Your task to perform on an android device: allow notifications from all sites in the chrome app Image 0: 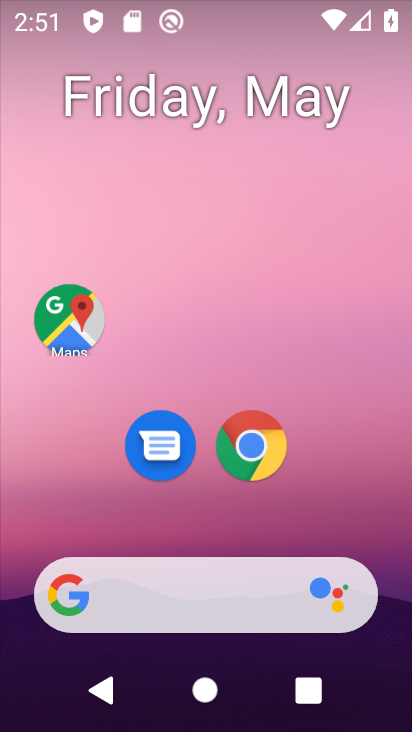
Step 0: drag from (385, 679) to (174, 137)
Your task to perform on an android device: allow notifications from all sites in the chrome app Image 1: 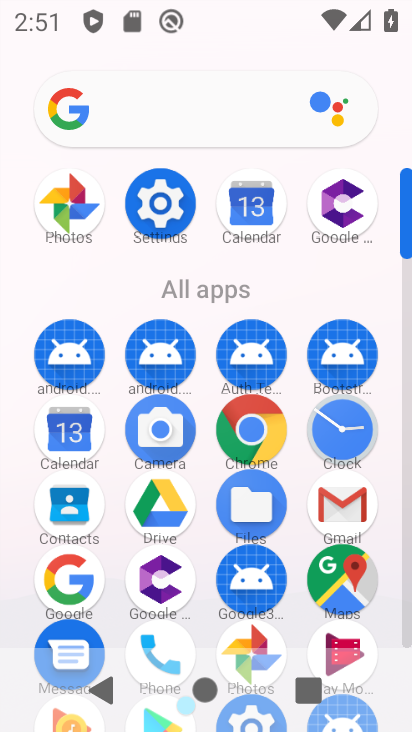
Step 1: click (251, 427)
Your task to perform on an android device: allow notifications from all sites in the chrome app Image 2: 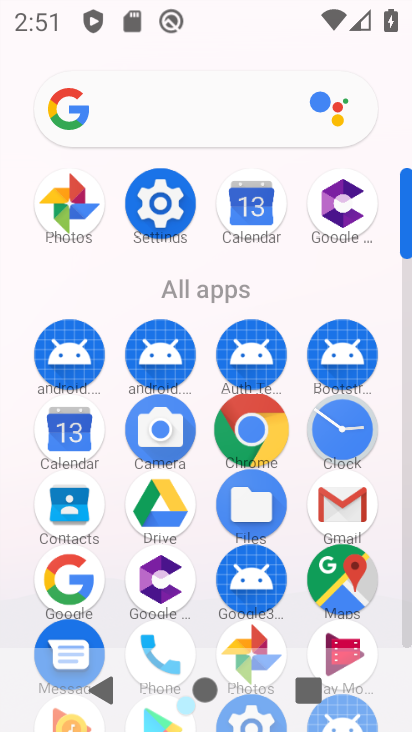
Step 2: click (251, 427)
Your task to perform on an android device: allow notifications from all sites in the chrome app Image 3: 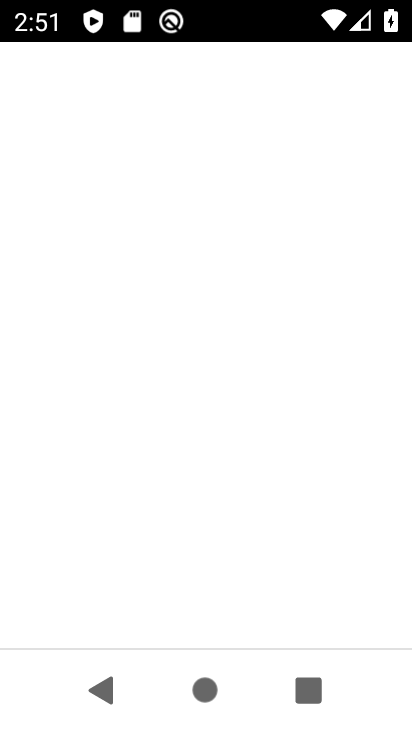
Step 3: click (251, 427)
Your task to perform on an android device: allow notifications from all sites in the chrome app Image 4: 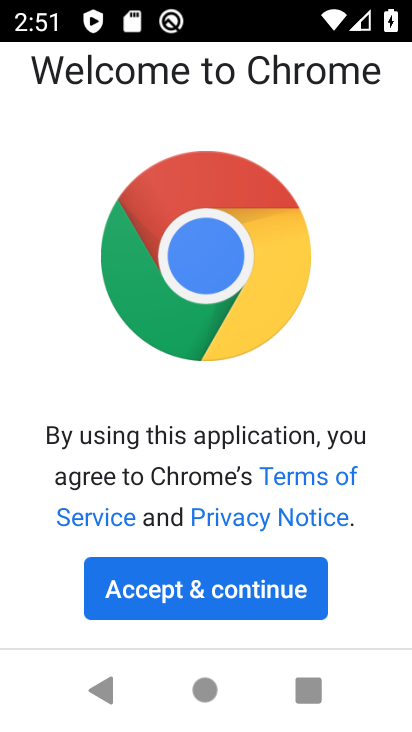
Step 4: click (203, 586)
Your task to perform on an android device: allow notifications from all sites in the chrome app Image 5: 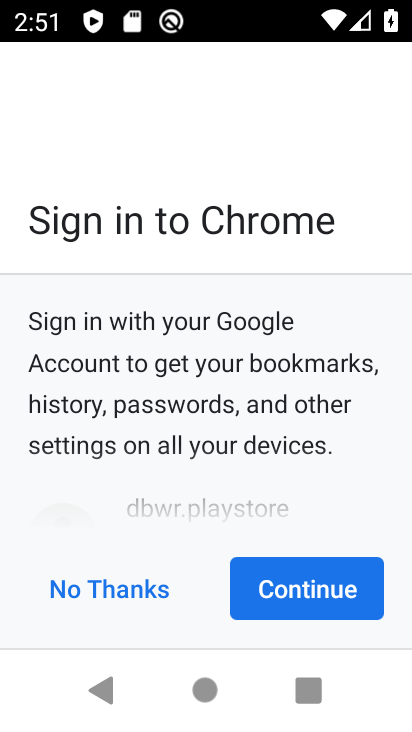
Step 5: click (325, 587)
Your task to perform on an android device: allow notifications from all sites in the chrome app Image 6: 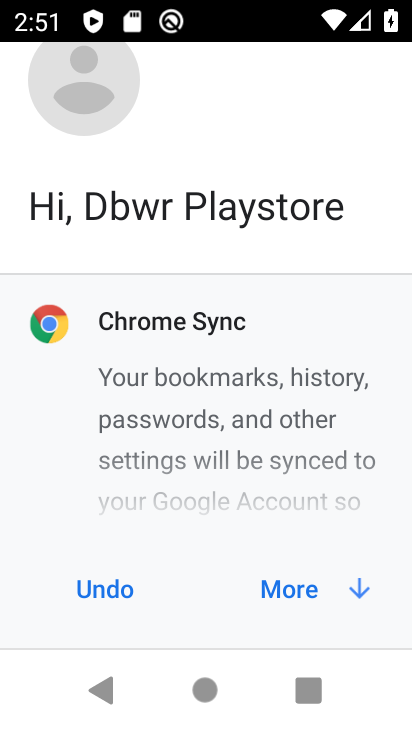
Step 6: click (312, 597)
Your task to perform on an android device: allow notifications from all sites in the chrome app Image 7: 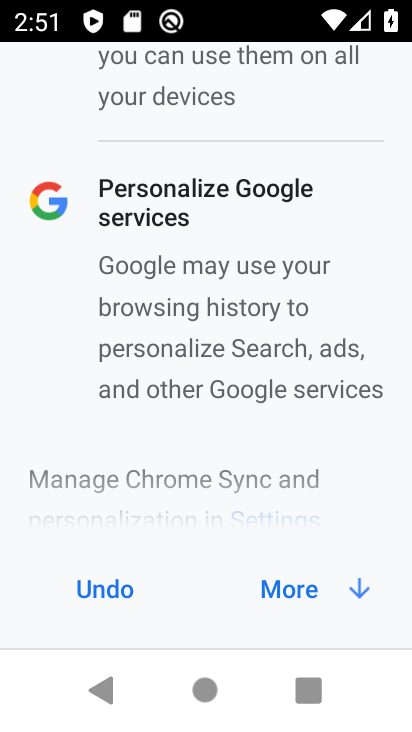
Step 7: click (308, 588)
Your task to perform on an android device: allow notifications from all sites in the chrome app Image 8: 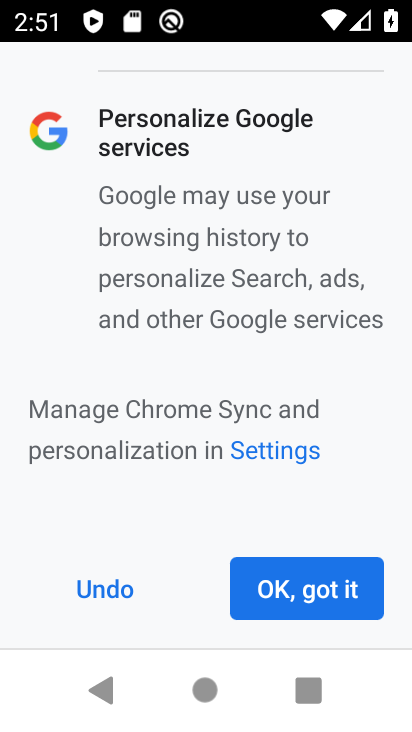
Step 8: click (308, 588)
Your task to perform on an android device: allow notifications from all sites in the chrome app Image 9: 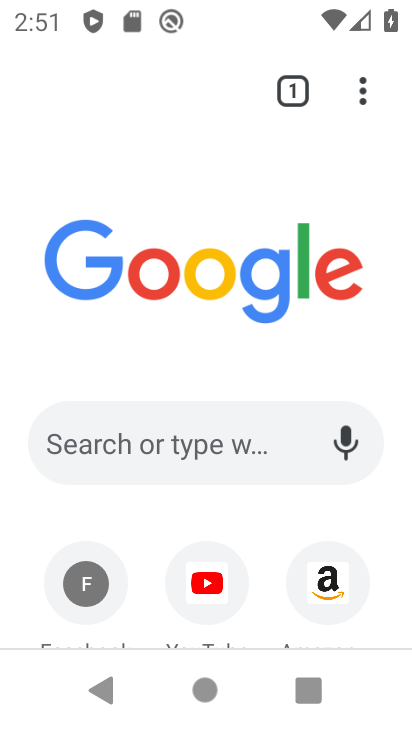
Step 9: drag from (359, 93) to (179, 442)
Your task to perform on an android device: allow notifications from all sites in the chrome app Image 10: 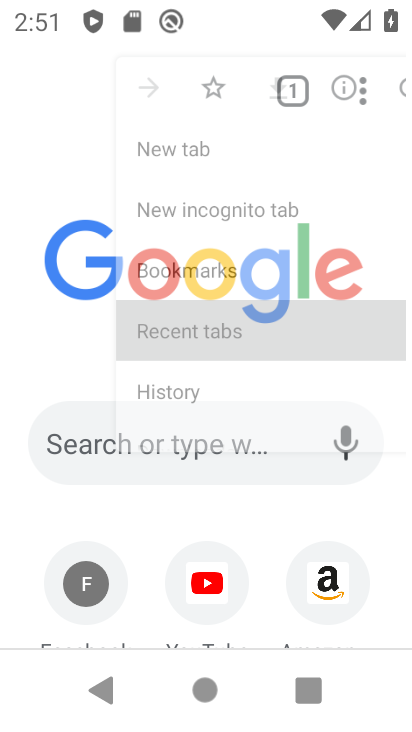
Step 10: drag from (179, 442) to (145, 185)
Your task to perform on an android device: allow notifications from all sites in the chrome app Image 11: 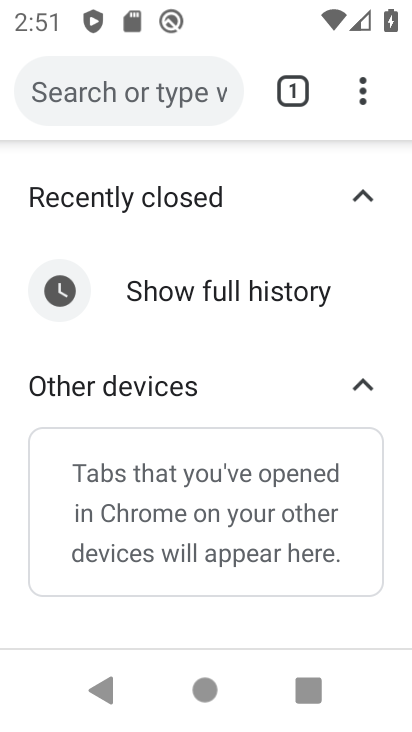
Step 11: press back button
Your task to perform on an android device: allow notifications from all sites in the chrome app Image 12: 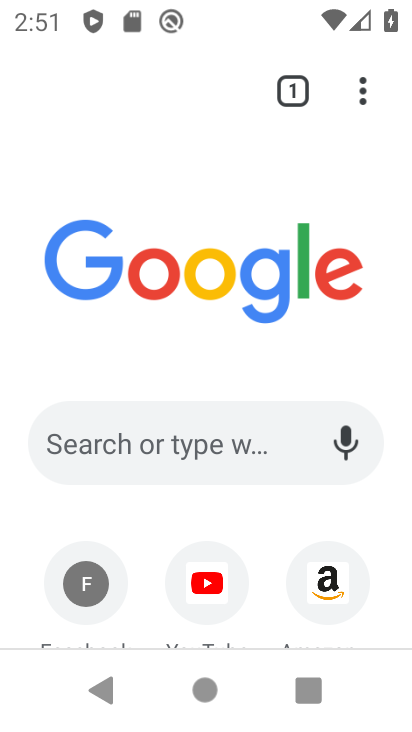
Step 12: drag from (364, 100) to (90, 478)
Your task to perform on an android device: allow notifications from all sites in the chrome app Image 13: 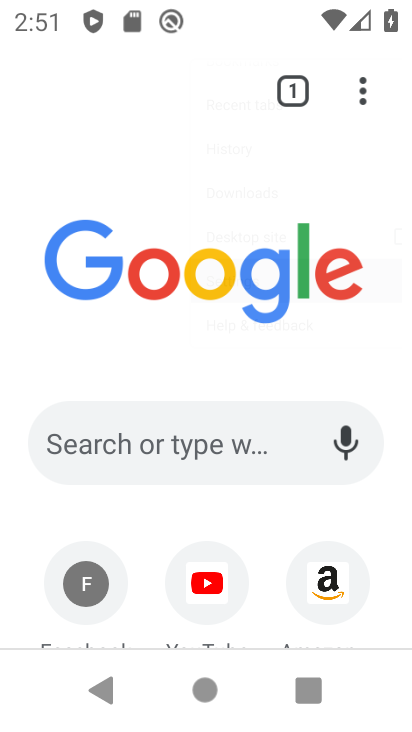
Step 13: click (90, 478)
Your task to perform on an android device: allow notifications from all sites in the chrome app Image 14: 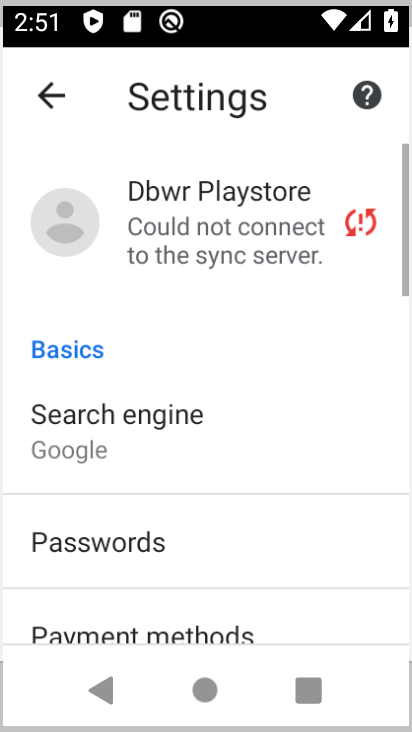
Step 14: click (90, 478)
Your task to perform on an android device: allow notifications from all sites in the chrome app Image 15: 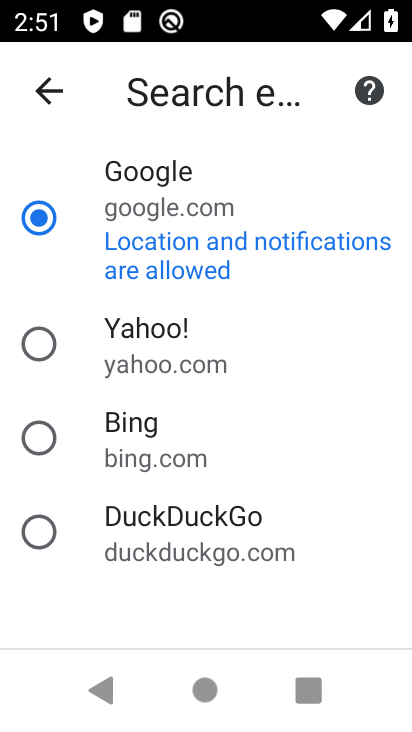
Step 15: click (46, 87)
Your task to perform on an android device: allow notifications from all sites in the chrome app Image 16: 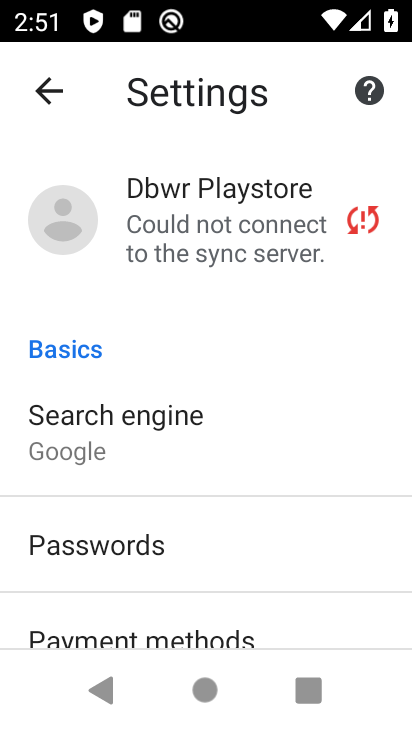
Step 16: drag from (123, 482) to (82, 193)
Your task to perform on an android device: allow notifications from all sites in the chrome app Image 17: 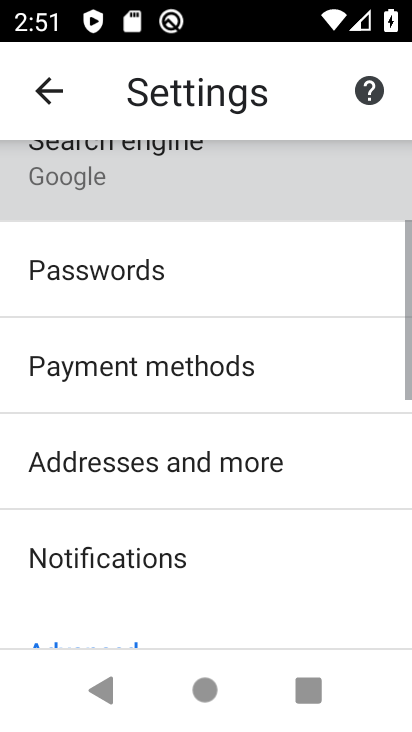
Step 17: drag from (147, 485) to (127, 342)
Your task to perform on an android device: allow notifications from all sites in the chrome app Image 18: 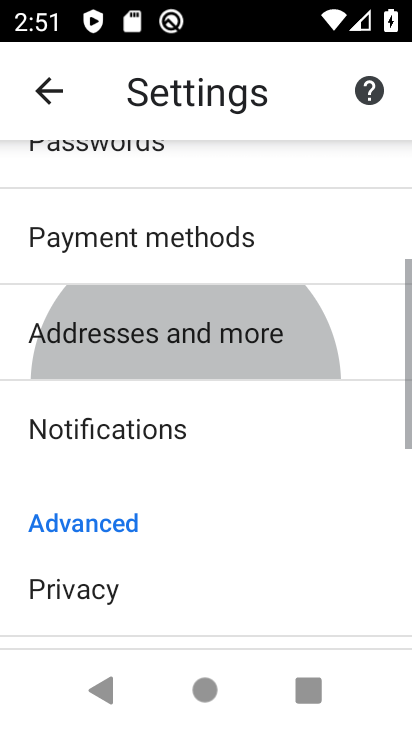
Step 18: click (153, 119)
Your task to perform on an android device: allow notifications from all sites in the chrome app Image 19: 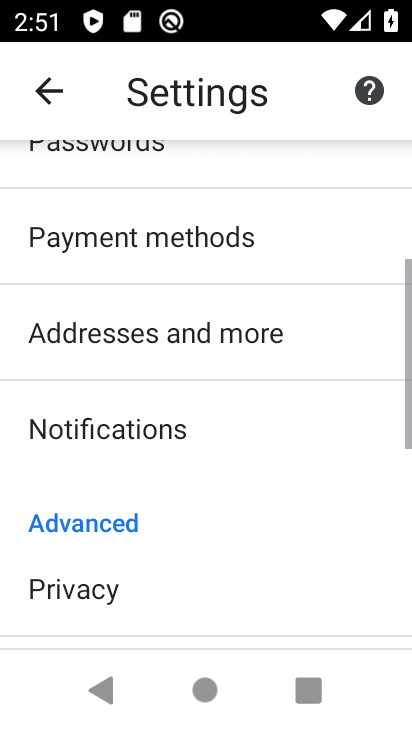
Step 19: drag from (145, 394) to (115, 100)
Your task to perform on an android device: allow notifications from all sites in the chrome app Image 20: 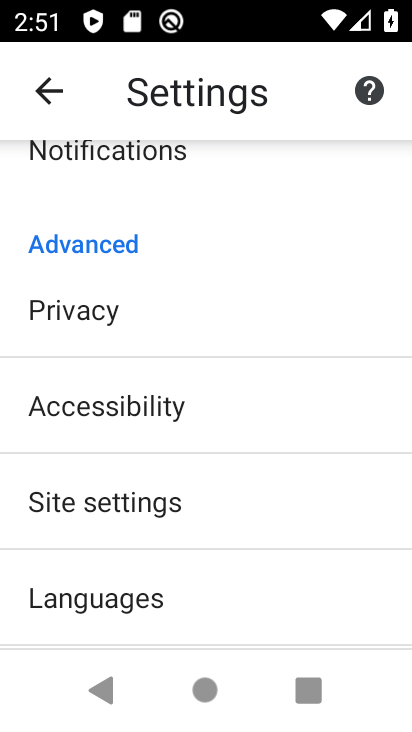
Step 20: click (96, 493)
Your task to perform on an android device: allow notifications from all sites in the chrome app Image 21: 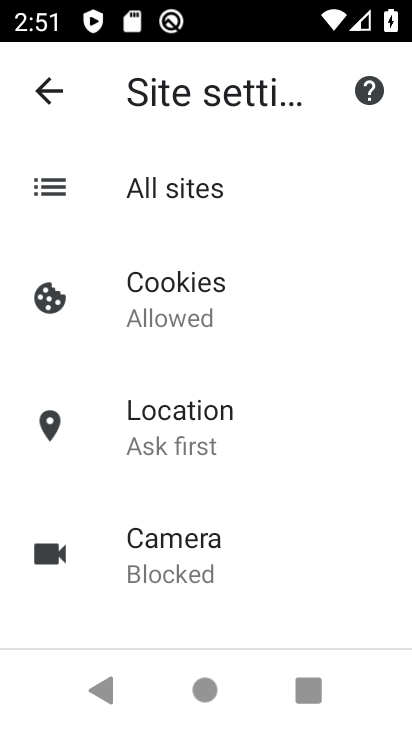
Step 21: click (160, 193)
Your task to perform on an android device: allow notifications from all sites in the chrome app Image 22: 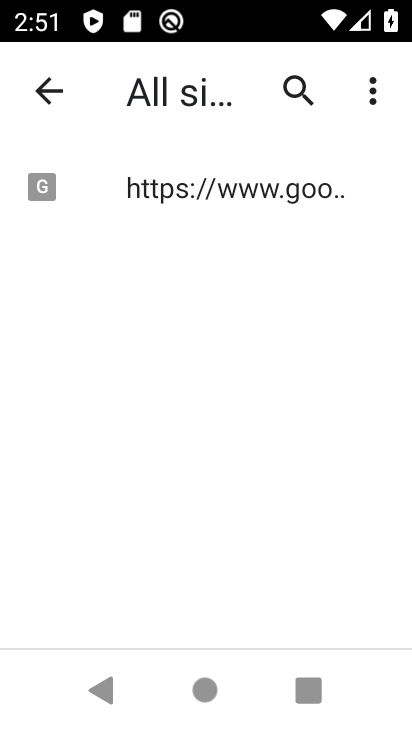
Step 22: click (196, 188)
Your task to perform on an android device: allow notifications from all sites in the chrome app Image 23: 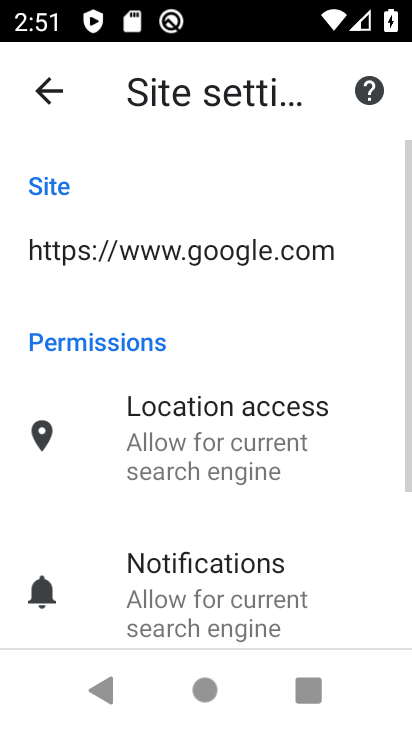
Step 23: click (190, 258)
Your task to perform on an android device: allow notifications from all sites in the chrome app Image 24: 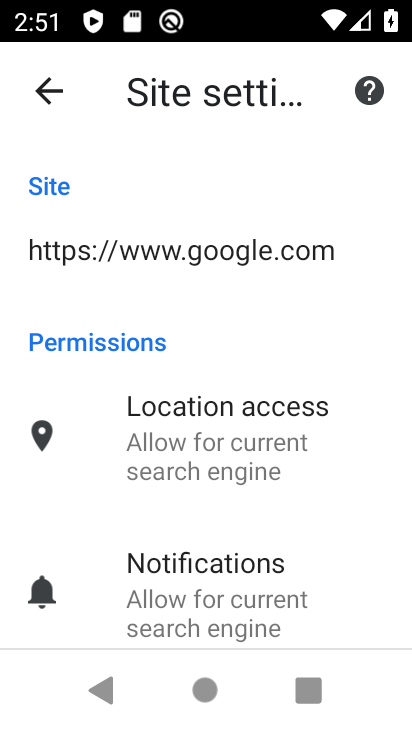
Step 24: drag from (199, 508) to (204, 157)
Your task to perform on an android device: allow notifications from all sites in the chrome app Image 25: 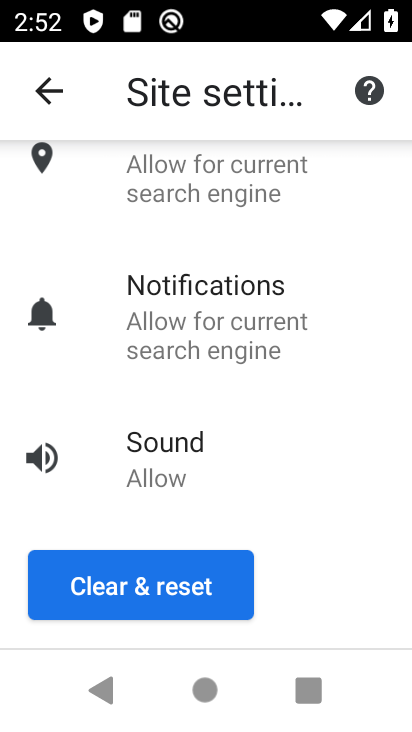
Step 25: click (158, 287)
Your task to perform on an android device: allow notifications from all sites in the chrome app Image 26: 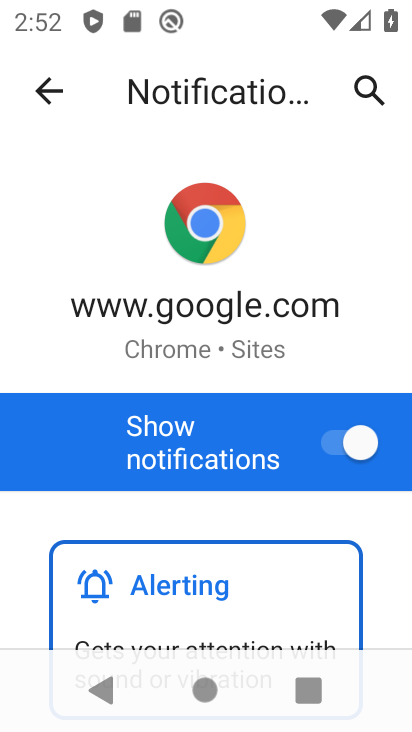
Step 26: task complete